Your task to perform on an android device: Open battery settings Image 0: 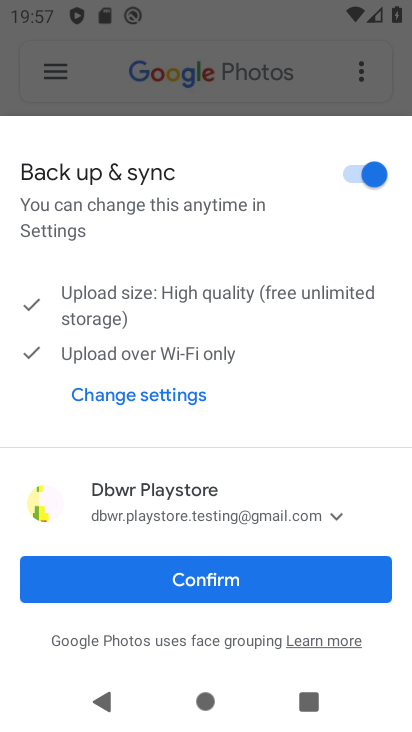
Step 0: press home button
Your task to perform on an android device: Open battery settings Image 1: 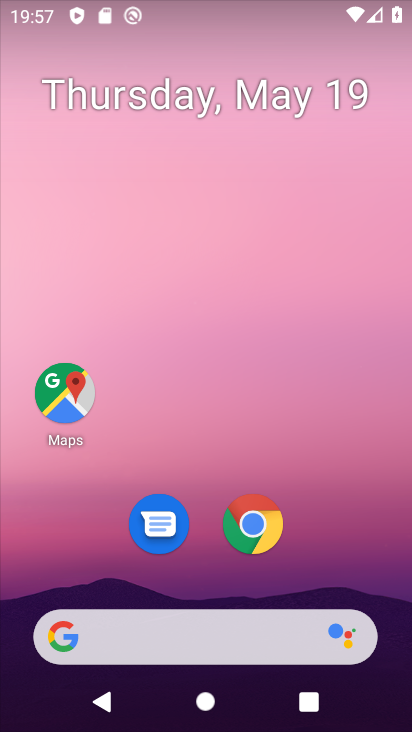
Step 1: drag from (313, 531) to (271, 69)
Your task to perform on an android device: Open battery settings Image 2: 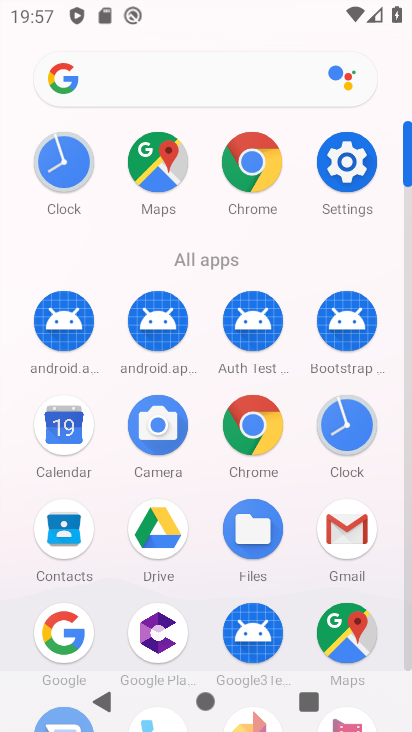
Step 2: click (334, 160)
Your task to perform on an android device: Open battery settings Image 3: 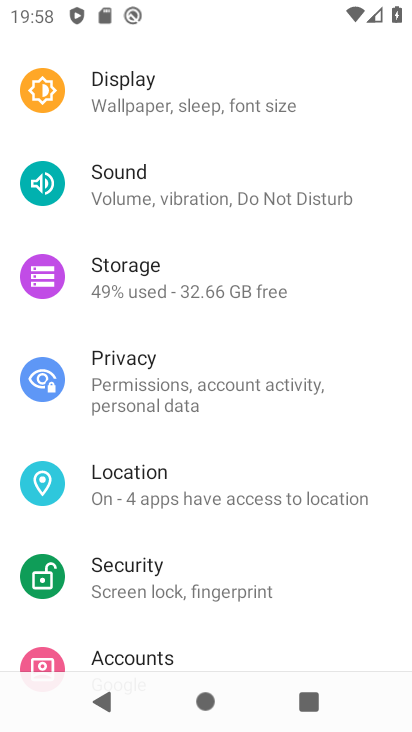
Step 3: drag from (229, 257) to (262, 618)
Your task to perform on an android device: Open battery settings Image 4: 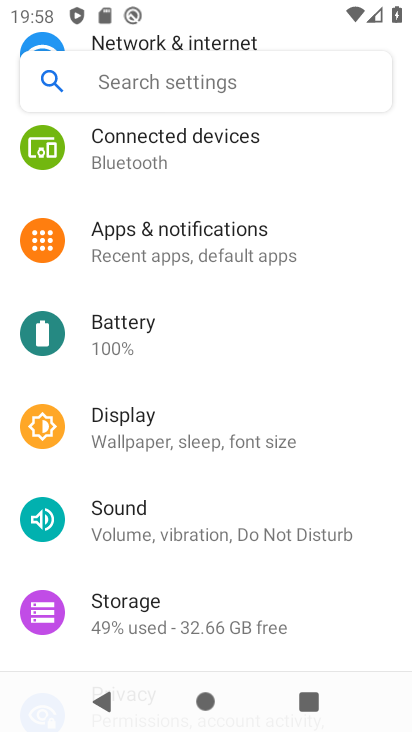
Step 4: click (180, 336)
Your task to perform on an android device: Open battery settings Image 5: 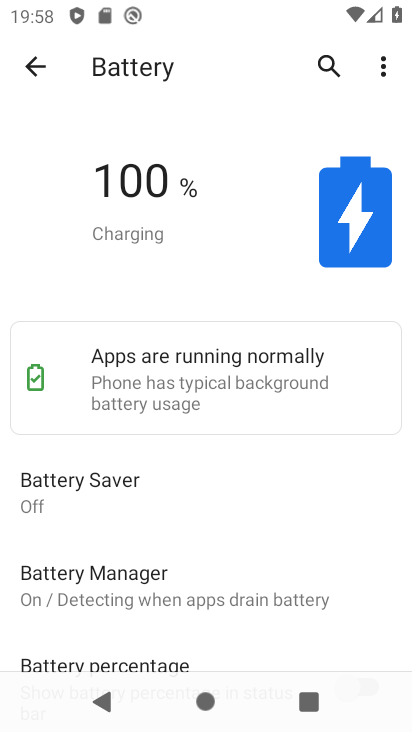
Step 5: task complete